Your task to perform on an android device: open wifi settings Image 0: 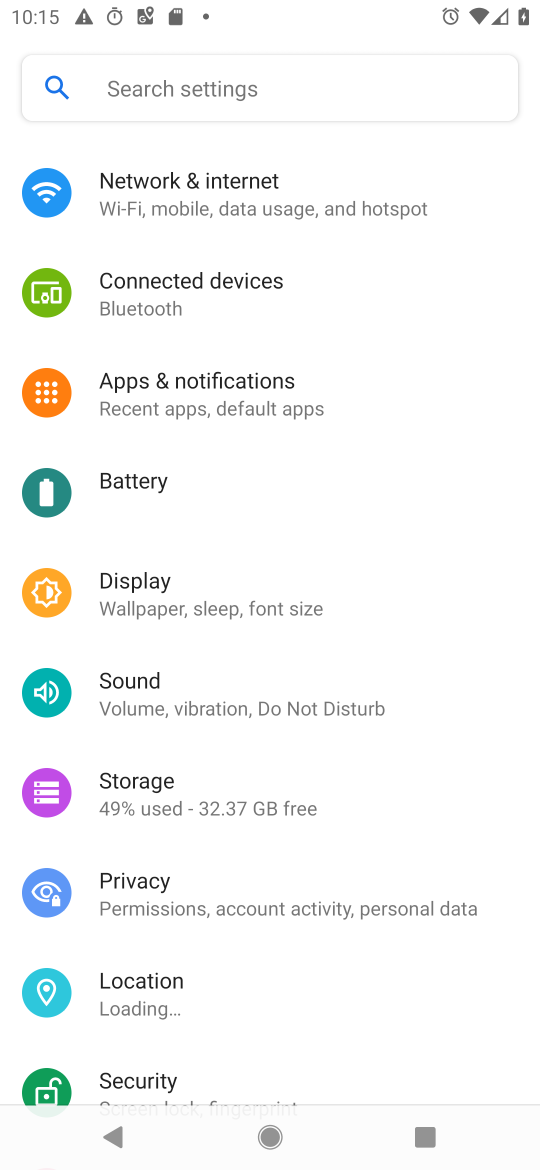
Step 0: press home button
Your task to perform on an android device: open wifi settings Image 1: 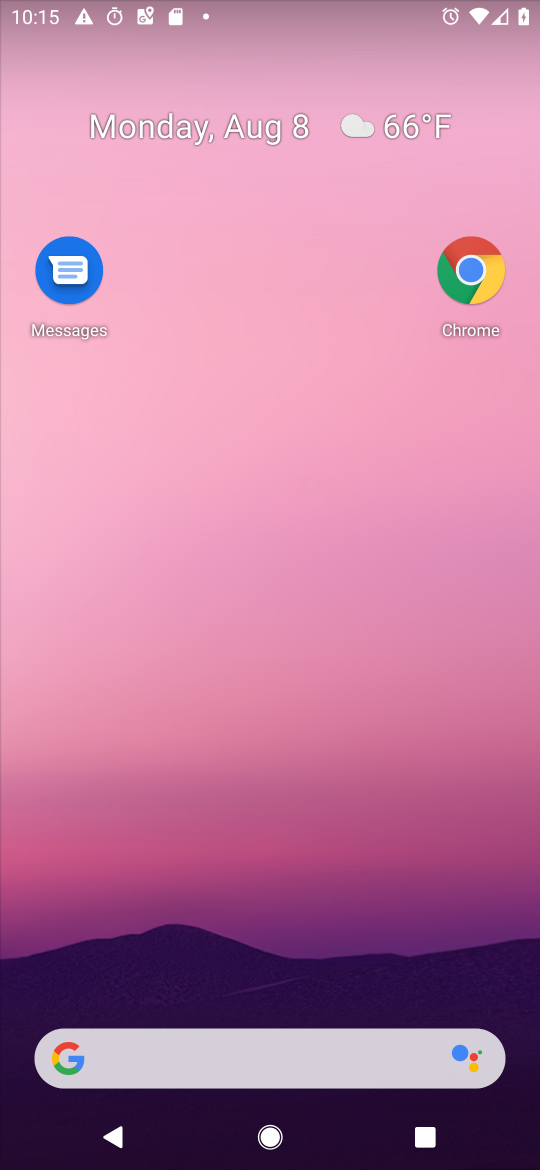
Step 1: press home button
Your task to perform on an android device: open wifi settings Image 2: 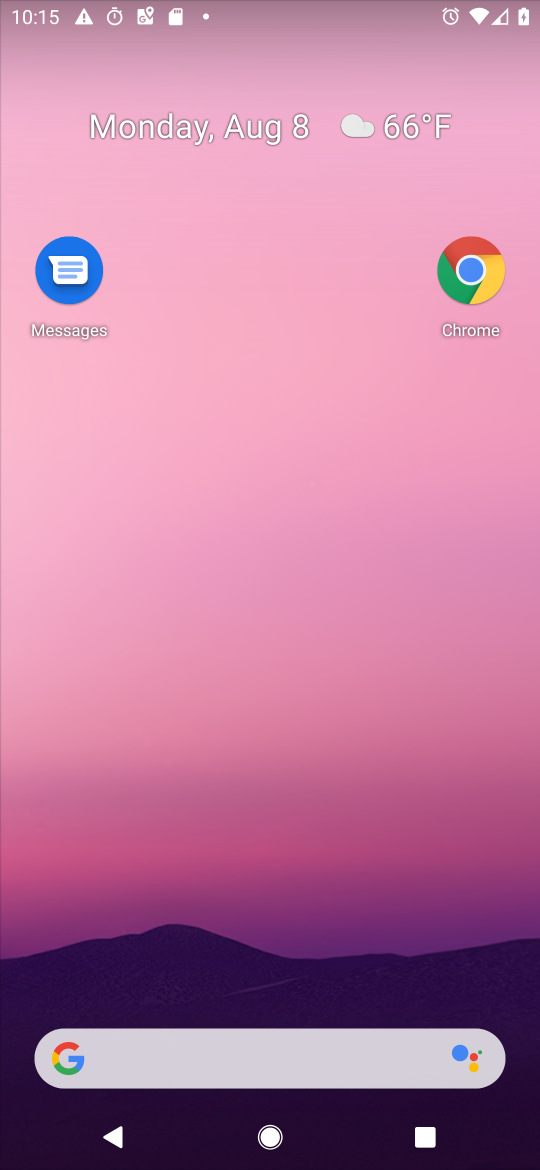
Step 2: drag from (255, 910) to (291, 12)
Your task to perform on an android device: open wifi settings Image 3: 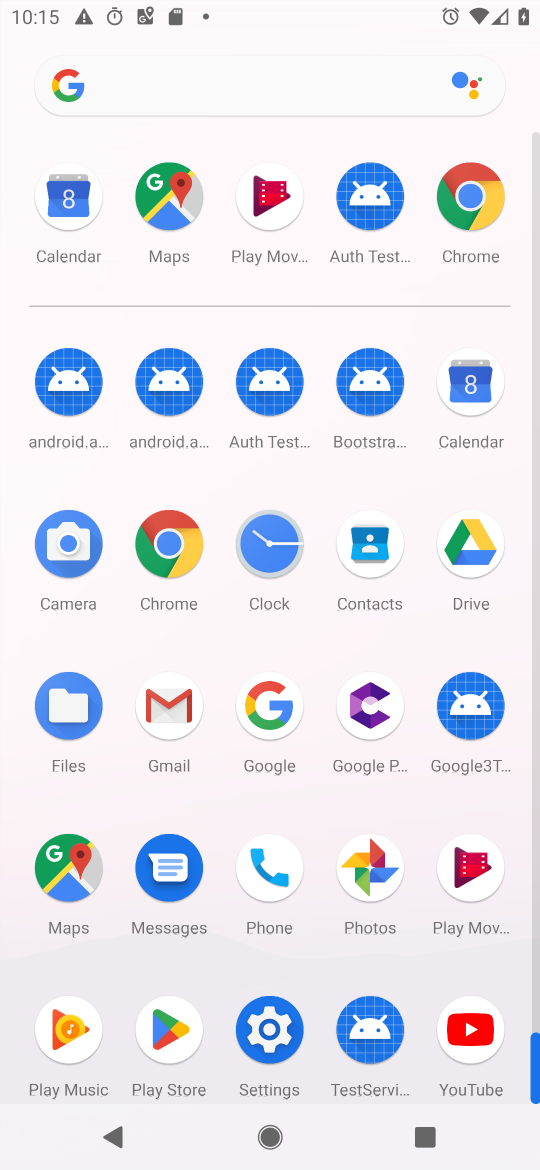
Step 3: click (266, 1029)
Your task to perform on an android device: open wifi settings Image 4: 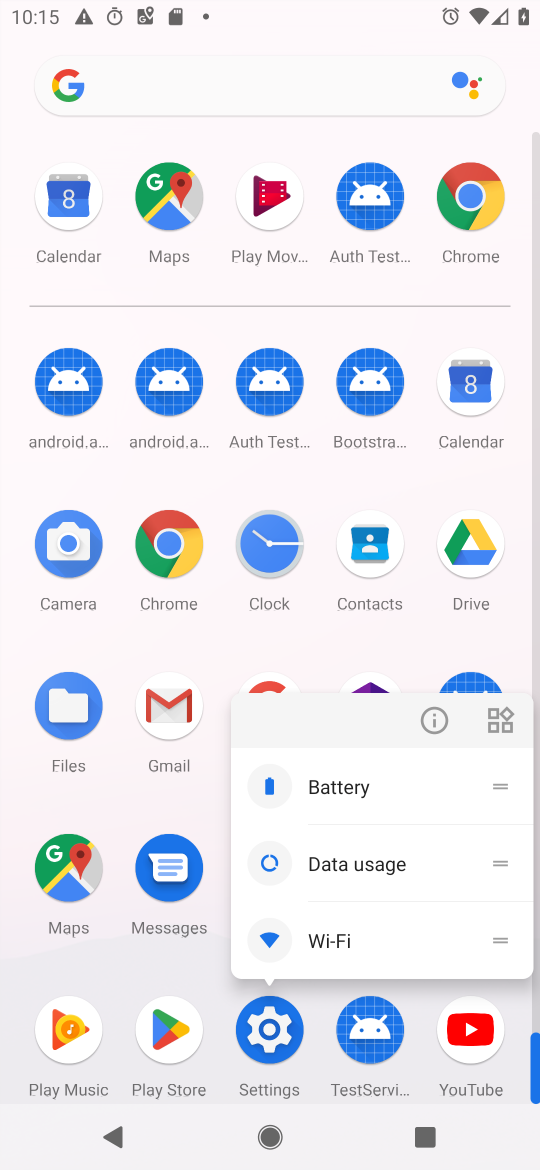
Step 4: click (436, 719)
Your task to perform on an android device: open wifi settings Image 5: 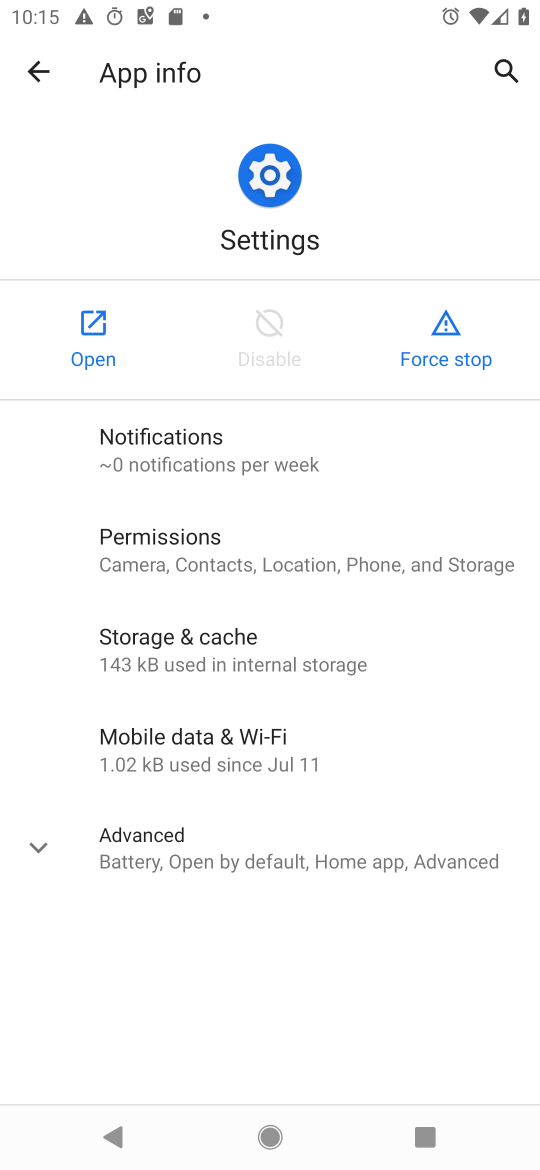
Step 5: click (84, 331)
Your task to perform on an android device: open wifi settings Image 6: 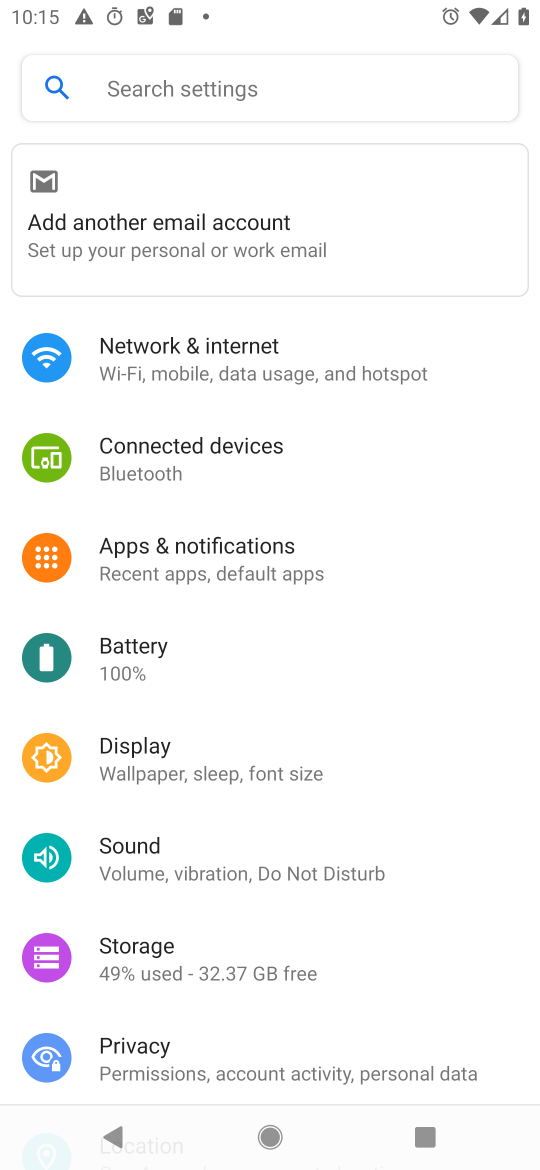
Step 6: click (142, 349)
Your task to perform on an android device: open wifi settings Image 7: 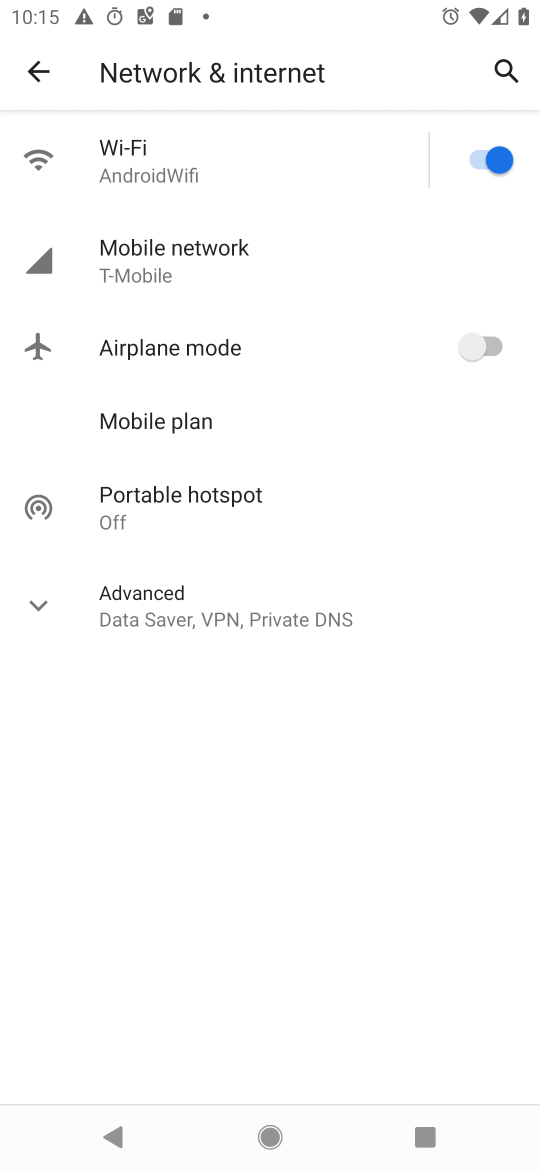
Step 7: click (260, 178)
Your task to perform on an android device: open wifi settings Image 8: 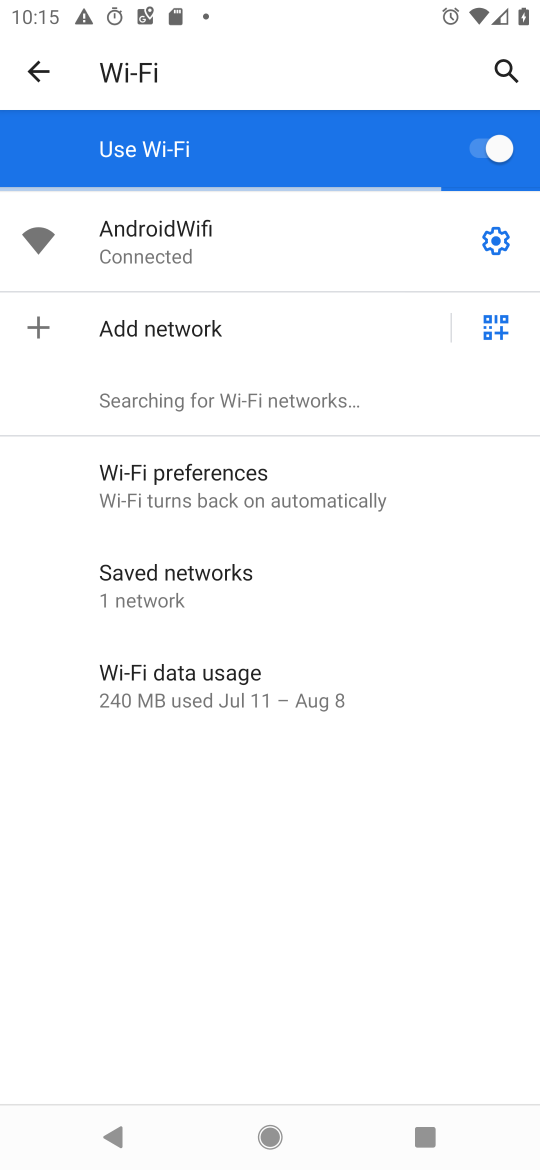
Step 8: click (487, 235)
Your task to perform on an android device: open wifi settings Image 9: 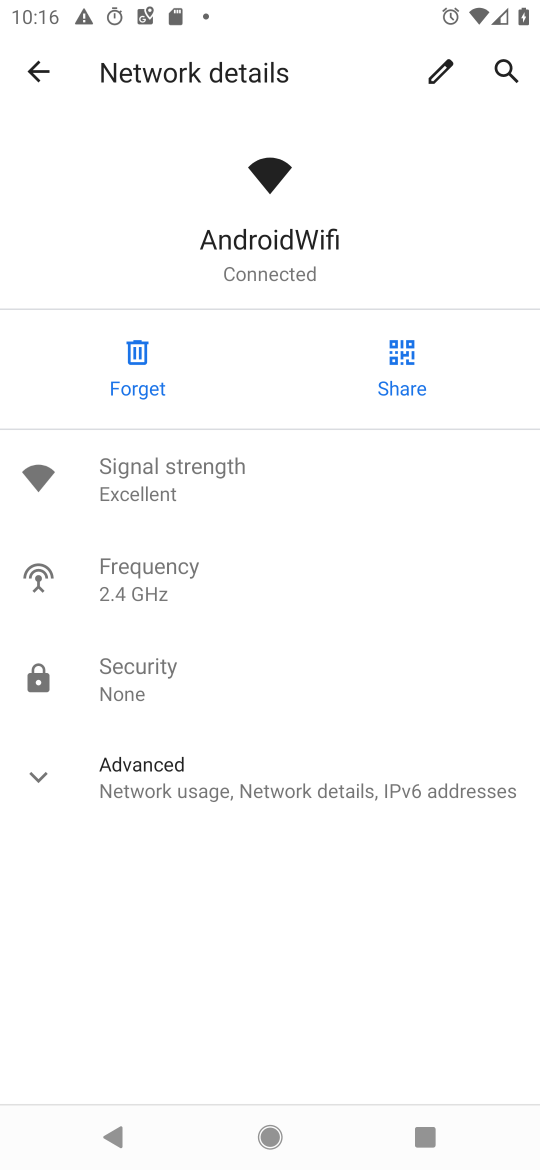
Step 9: task complete